Your task to perform on an android device: toggle priority inbox in the gmail app Image 0: 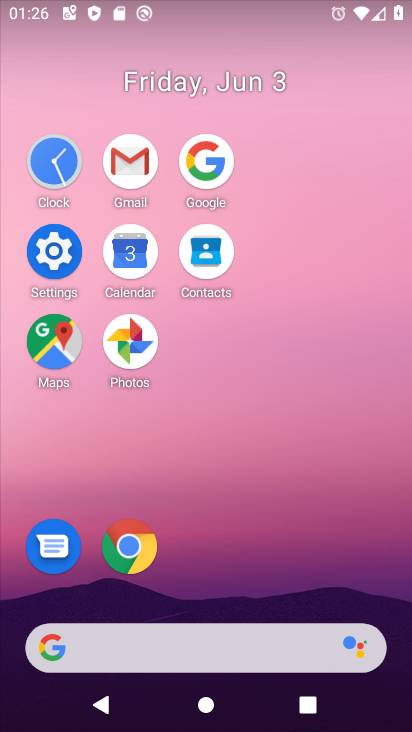
Step 0: click (130, 173)
Your task to perform on an android device: toggle priority inbox in the gmail app Image 1: 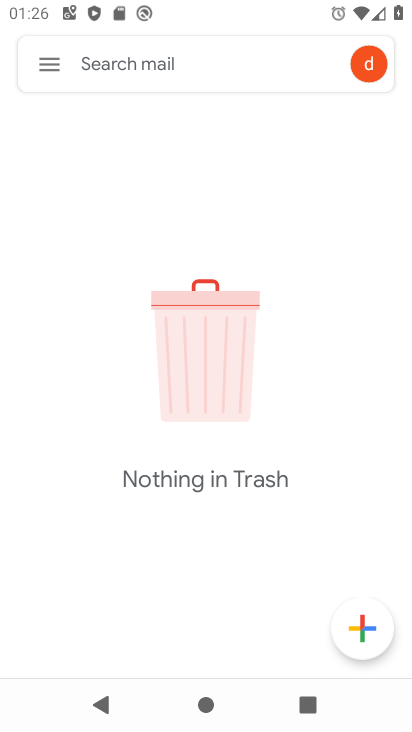
Step 1: click (58, 80)
Your task to perform on an android device: toggle priority inbox in the gmail app Image 2: 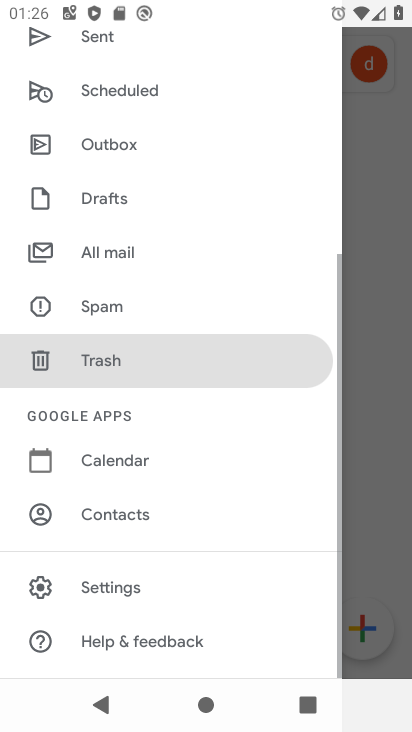
Step 2: click (136, 624)
Your task to perform on an android device: toggle priority inbox in the gmail app Image 3: 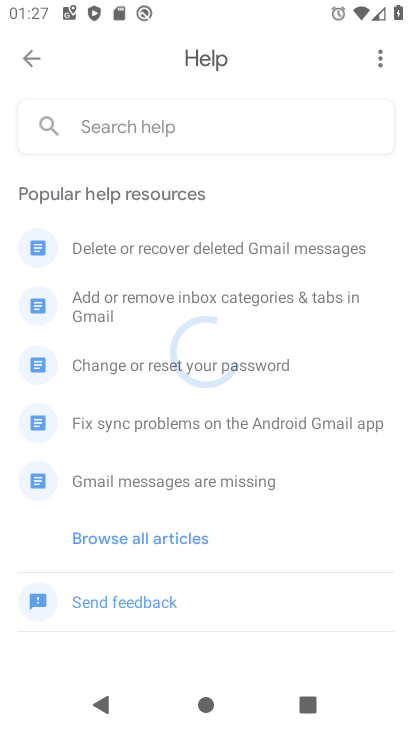
Step 3: click (42, 40)
Your task to perform on an android device: toggle priority inbox in the gmail app Image 4: 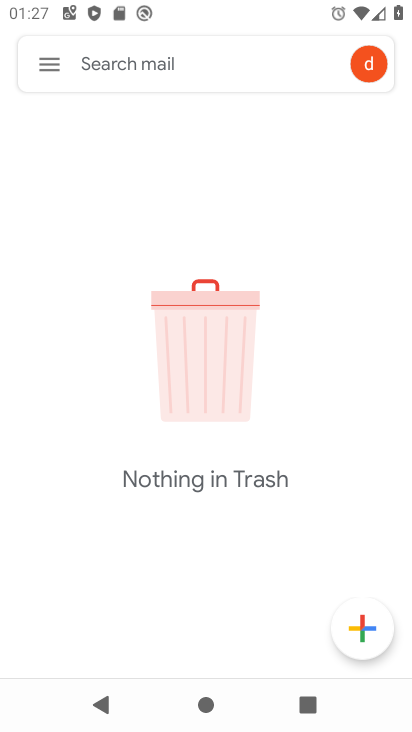
Step 4: click (49, 48)
Your task to perform on an android device: toggle priority inbox in the gmail app Image 5: 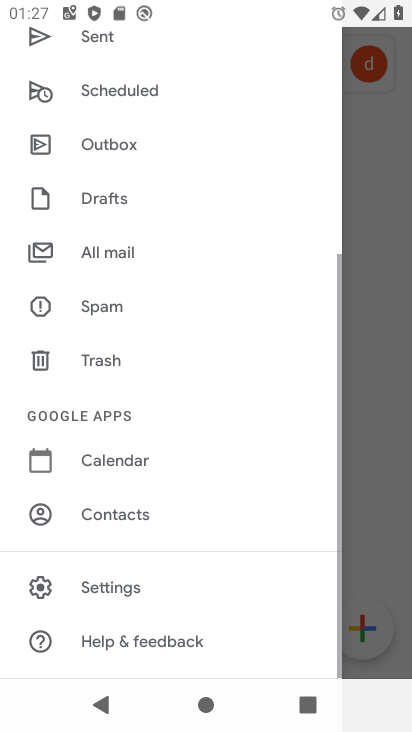
Step 5: click (160, 585)
Your task to perform on an android device: toggle priority inbox in the gmail app Image 6: 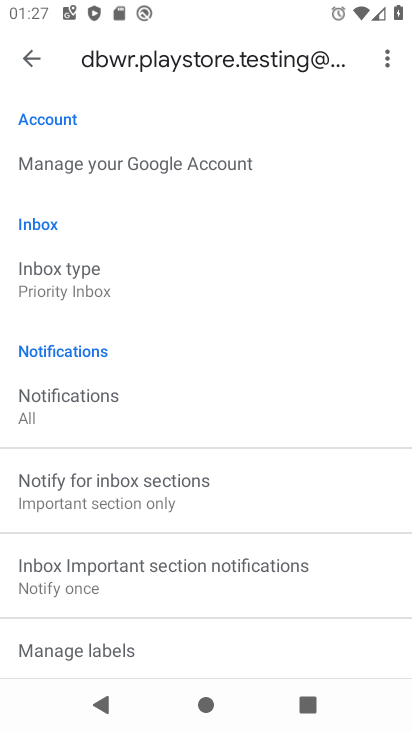
Step 6: click (146, 286)
Your task to perform on an android device: toggle priority inbox in the gmail app Image 7: 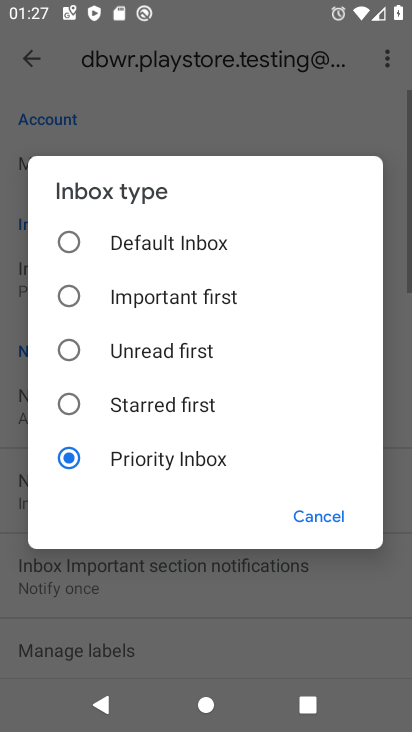
Step 7: click (230, 230)
Your task to perform on an android device: toggle priority inbox in the gmail app Image 8: 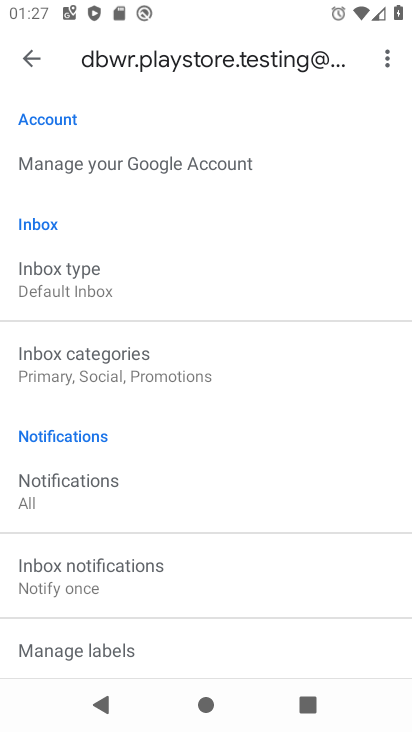
Step 8: task complete